Your task to perform on an android device: Go to internet settings Image 0: 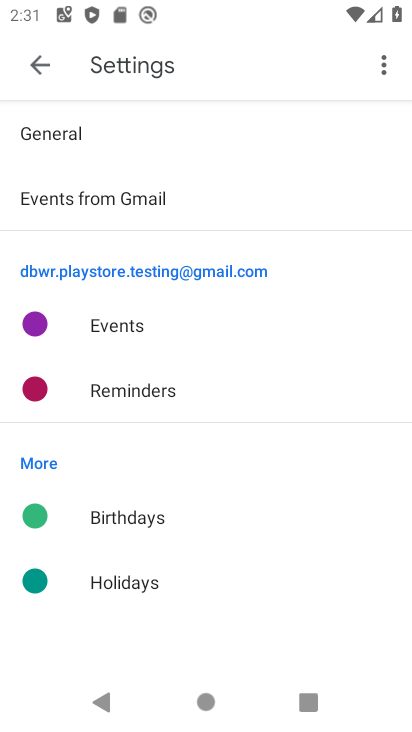
Step 0: press back button
Your task to perform on an android device: Go to internet settings Image 1: 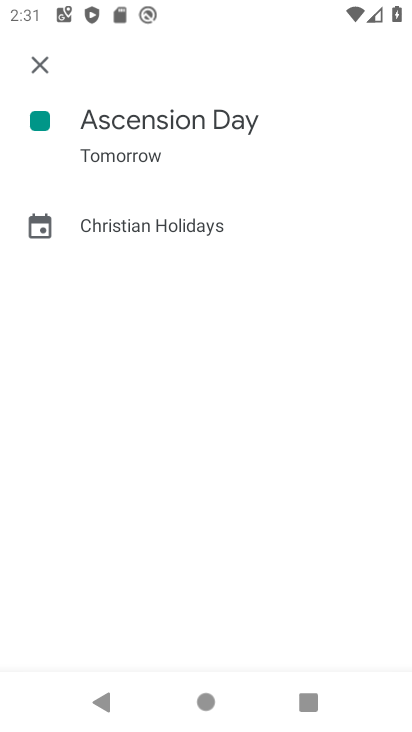
Step 1: press back button
Your task to perform on an android device: Go to internet settings Image 2: 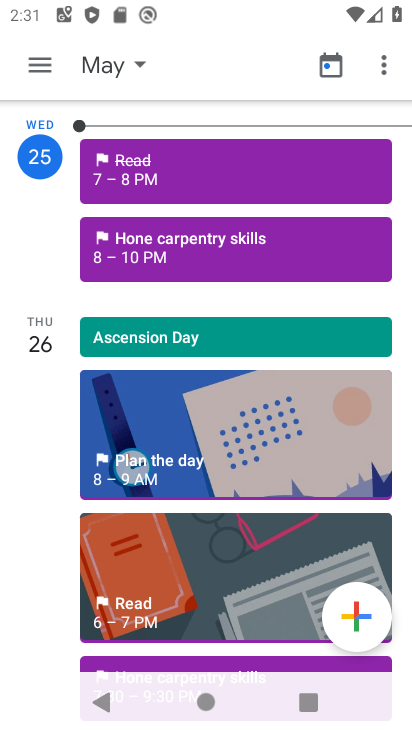
Step 2: press back button
Your task to perform on an android device: Go to internet settings Image 3: 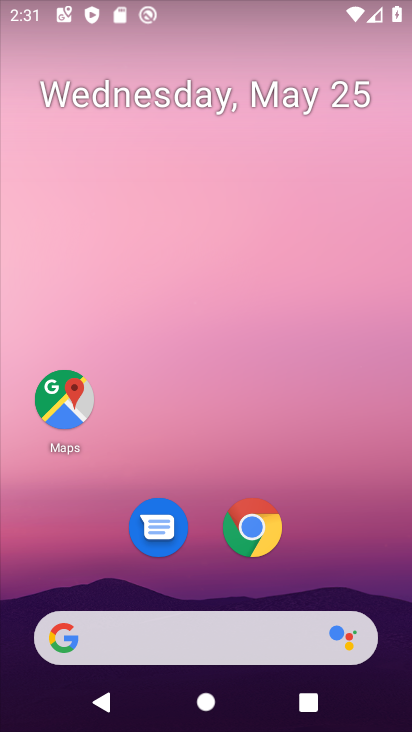
Step 3: drag from (189, 476) to (207, 43)
Your task to perform on an android device: Go to internet settings Image 4: 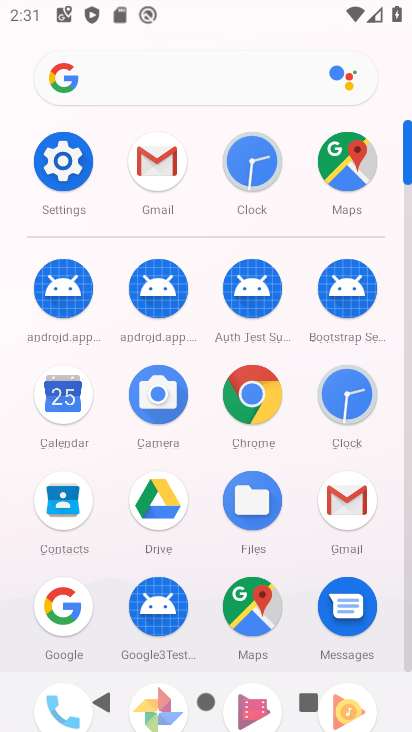
Step 4: click (41, 134)
Your task to perform on an android device: Go to internet settings Image 5: 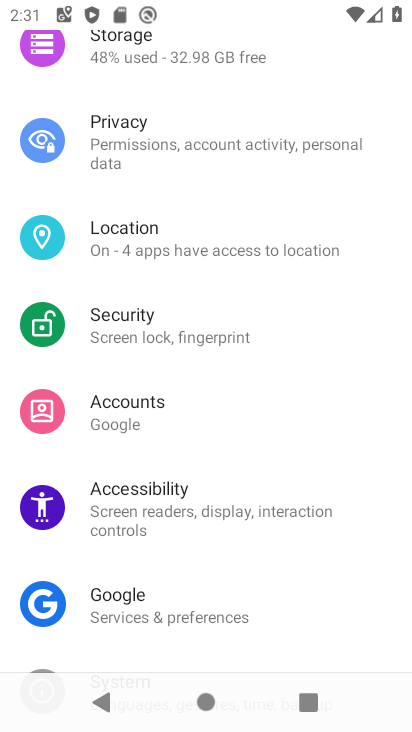
Step 5: drag from (223, 238) to (213, 661)
Your task to perform on an android device: Go to internet settings Image 6: 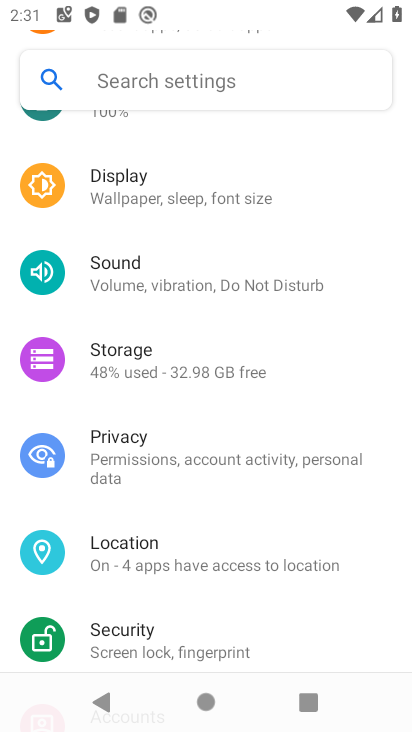
Step 6: drag from (175, 204) to (180, 694)
Your task to perform on an android device: Go to internet settings Image 7: 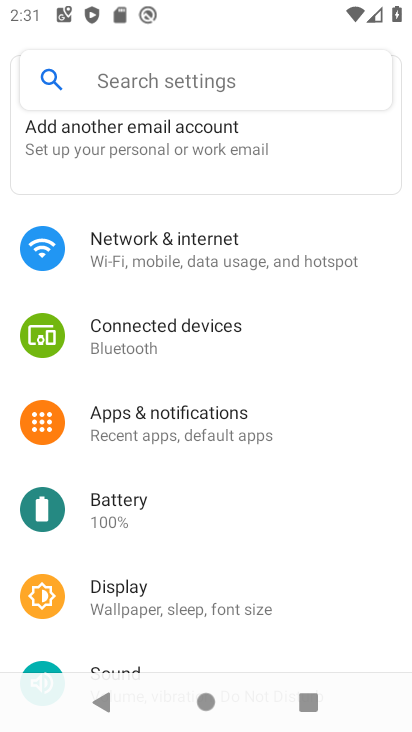
Step 7: click (194, 252)
Your task to perform on an android device: Go to internet settings Image 8: 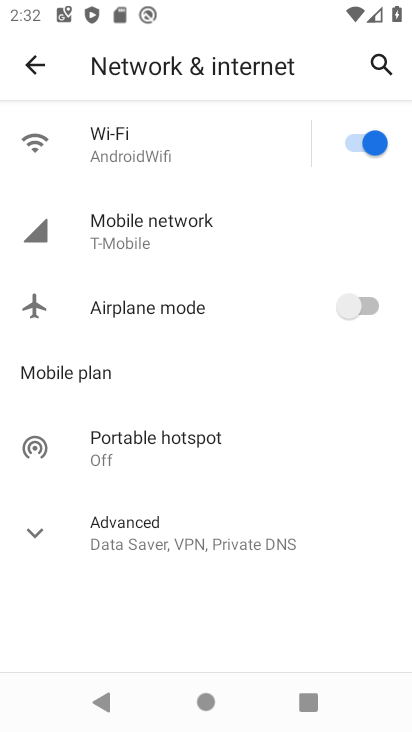
Step 8: task complete